Your task to perform on an android device: Search for Italian restaurants on Maps Image 0: 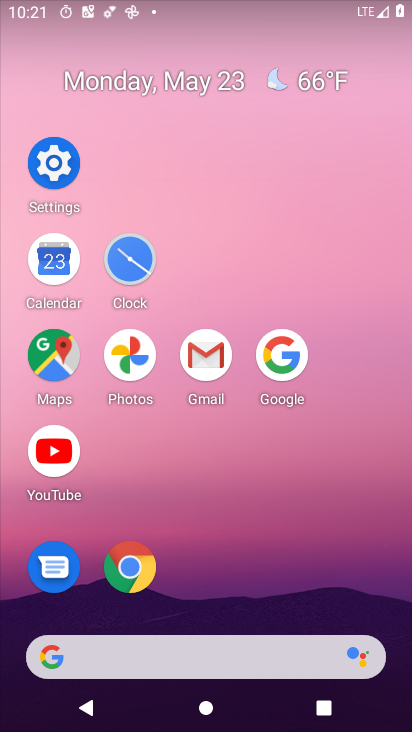
Step 0: click (67, 356)
Your task to perform on an android device: Search for Italian restaurants on Maps Image 1: 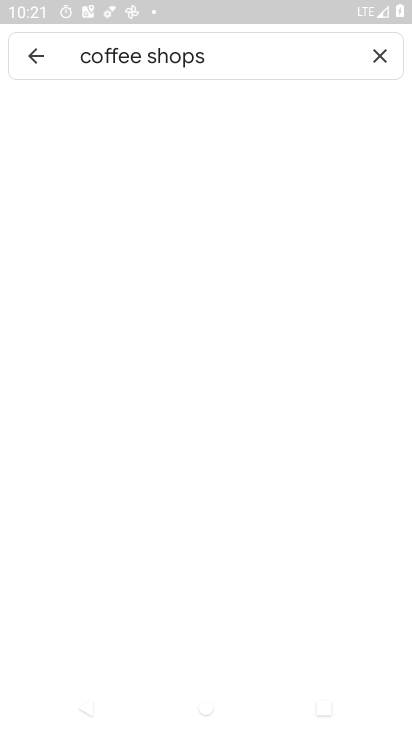
Step 1: click (379, 52)
Your task to perform on an android device: Search for Italian restaurants on Maps Image 2: 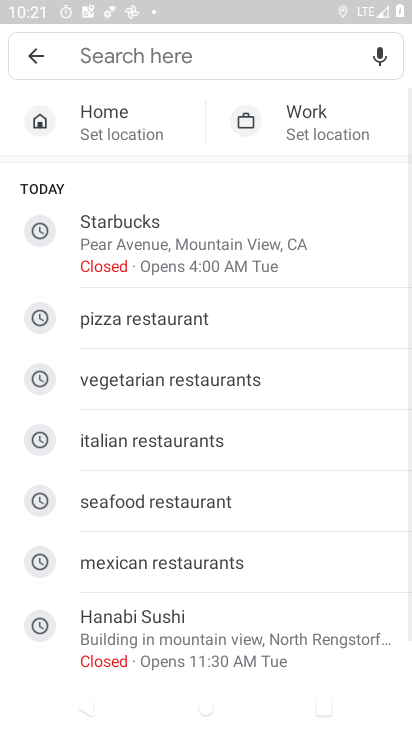
Step 2: click (207, 71)
Your task to perform on an android device: Search for Italian restaurants on Maps Image 3: 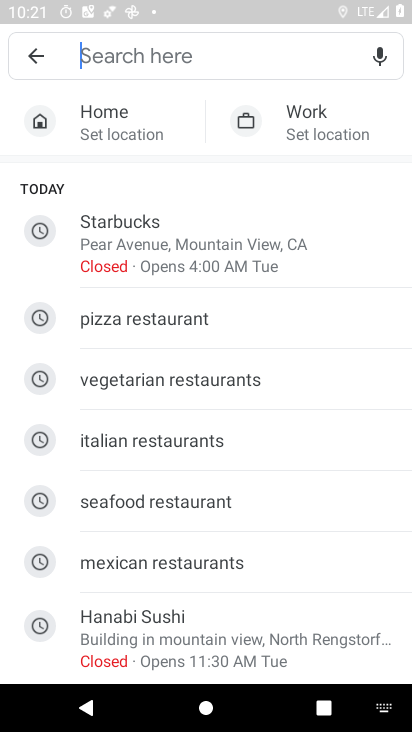
Step 3: click (187, 445)
Your task to perform on an android device: Search for Italian restaurants on Maps Image 4: 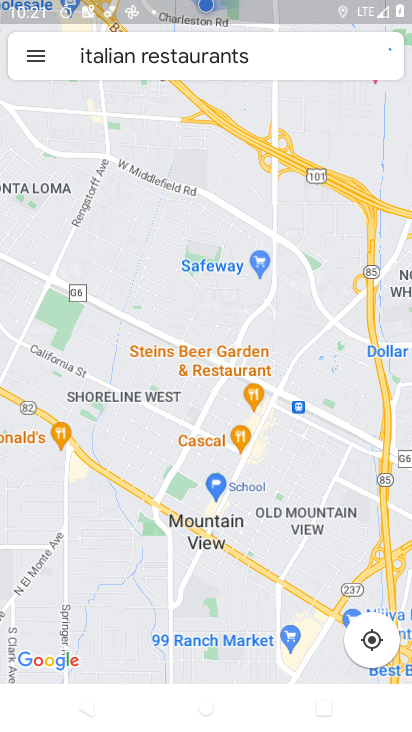
Step 4: task complete